Your task to perform on an android device: Go to notification settings Image 0: 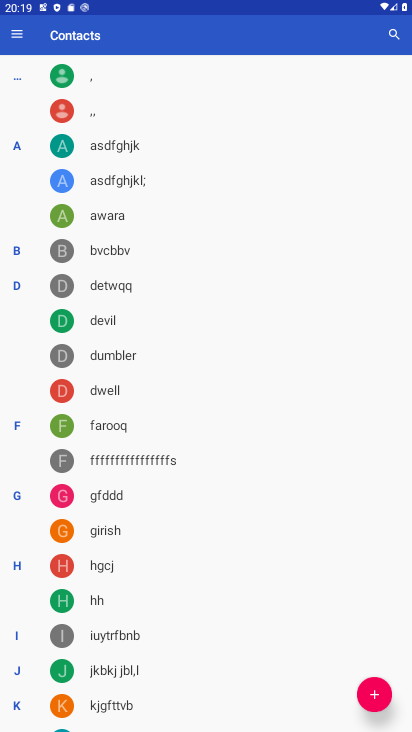
Step 0: press home button
Your task to perform on an android device: Go to notification settings Image 1: 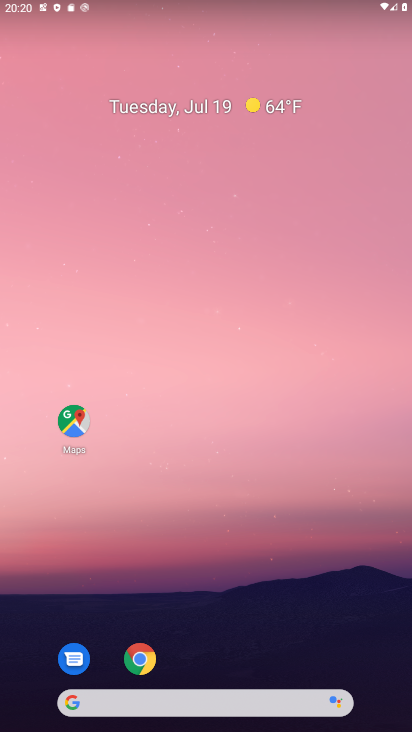
Step 1: drag from (298, 544) to (202, 220)
Your task to perform on an android device: Go to notification settings Image 2: 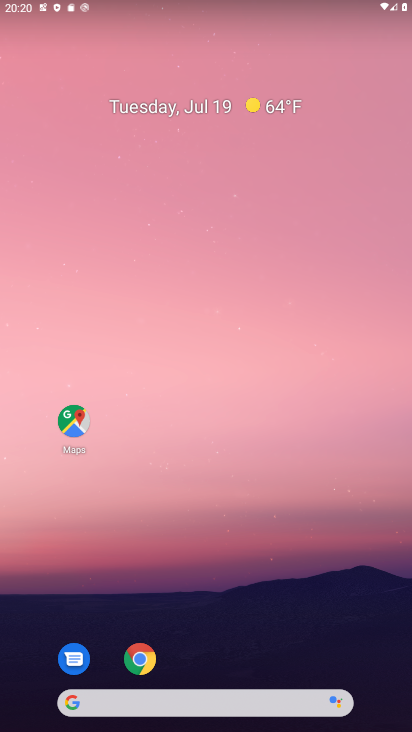
Step 2: drag from (160, 619) to (178, 130)
Your task to perform on an android device: Go to notification settings Image 3: 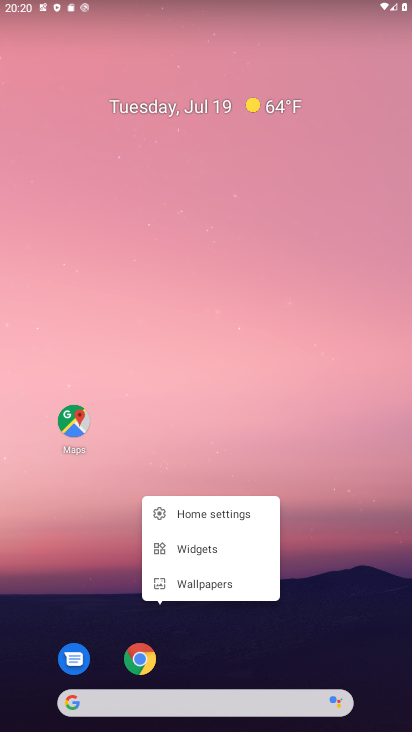
Step 3: click (216, 677)
Your task to perform on an android device: Go to notification settings Image 4: 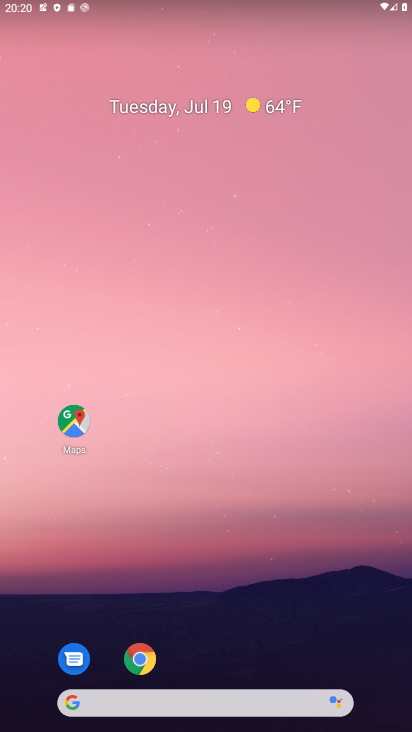
Step 4: drag from (216, 677) to (220, 224)
Your task to perform on an android device: Go to notification settings Image 5: 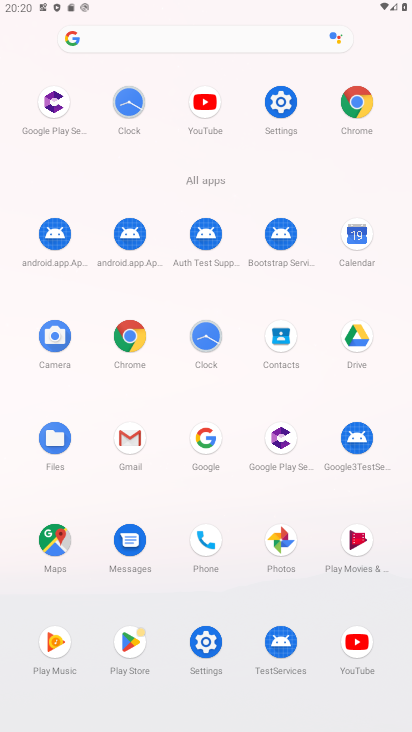
Step 5: click (296, 112)
Your task to perform on an android device: Go to notification settings Image 6: 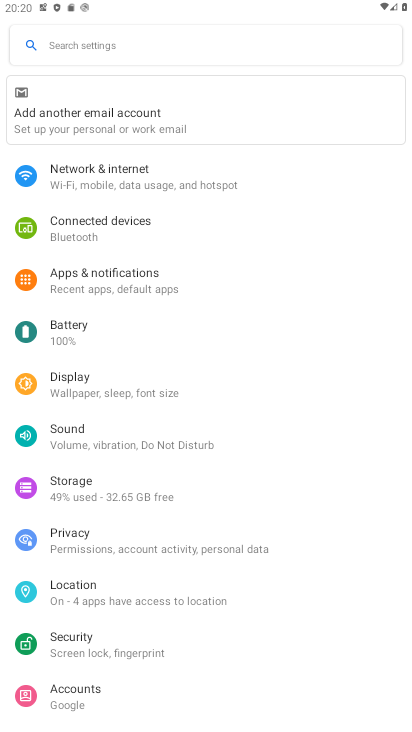
Step 6: click (175, 280)
Your task to perform on an android device: Go to notification settings Image 7: 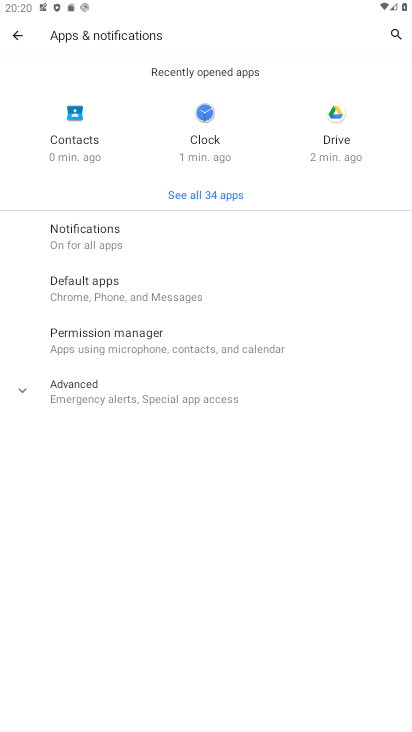
Step 7: task complete